Your task to perform on an android device: refresh tabs in the chrome app Image 0: 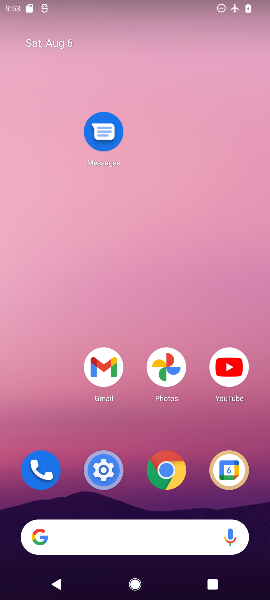
Step 0: drag from (117, 535) to (128, 202)
Your task to perform on an android device: refresh tabs in the chrome app Image 1: 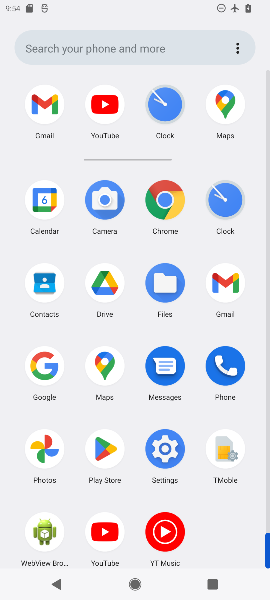
Step 1: click (166, 191)
Your task to perform on an android device: refresh tabs in the chrome app Image 2: 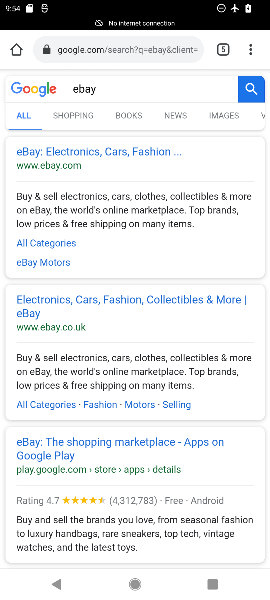
Step 2: click (244, 55)
Your task to perform on an android device: refresh tabs in the chrome app Image 3: 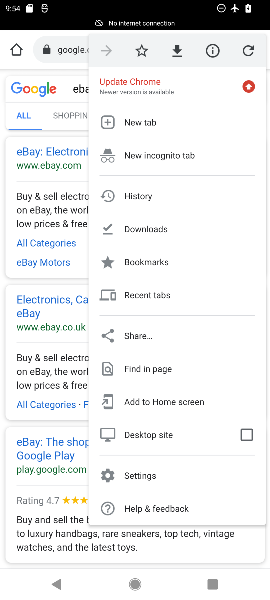
Step 3: click (262, 46)
Your task to perform on an android device: refresh tabs in the chrome app Image 4: 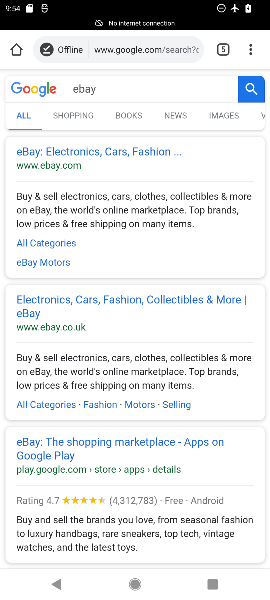
Step 4: task complete